Your task to perform on an android device: Go to Wikipedia Image 0: 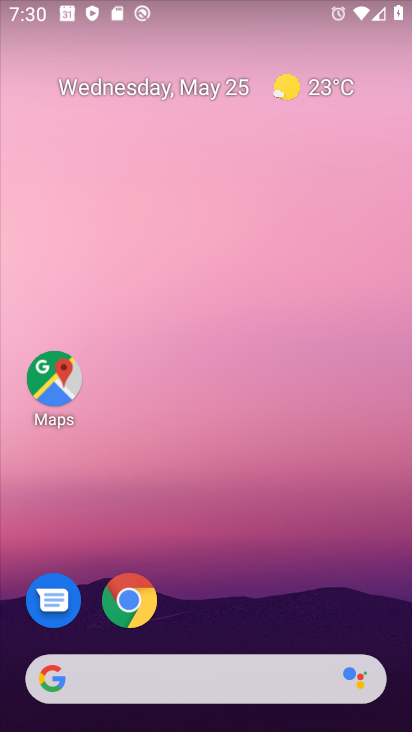
Step 0: click (129, 600)
Your task to perform on an android device: Go to Wikipedia Image 1: 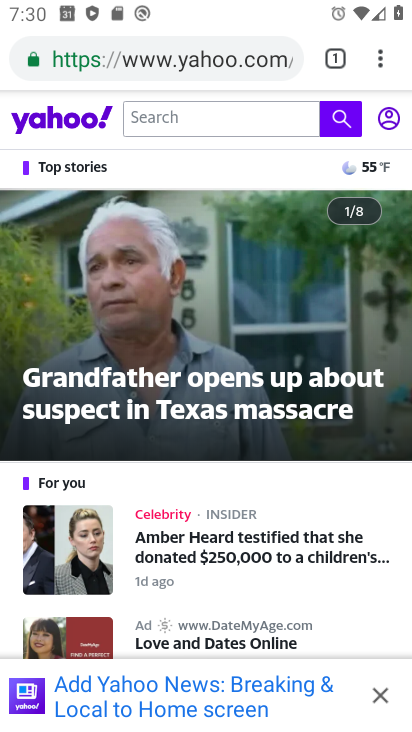
Step 1: click (278, 61)
Your task to perform on an android device: Go to Wikipedia Image 2: 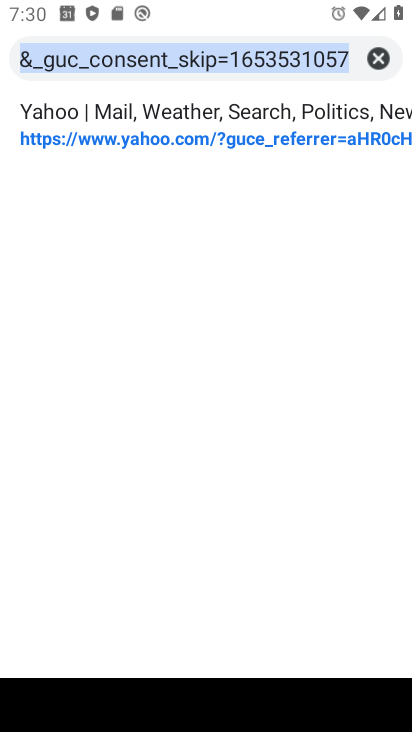
Step 2: click (374, 53)
Your task to perform on an android device: Go to Wikipedia Image 3: 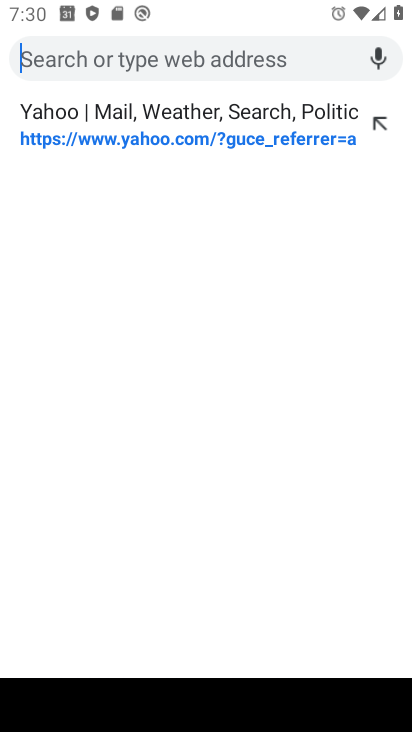
Step 3: type "Wikipedia"
Your task to perform on an android device: Go to Wikipedia Image 4: 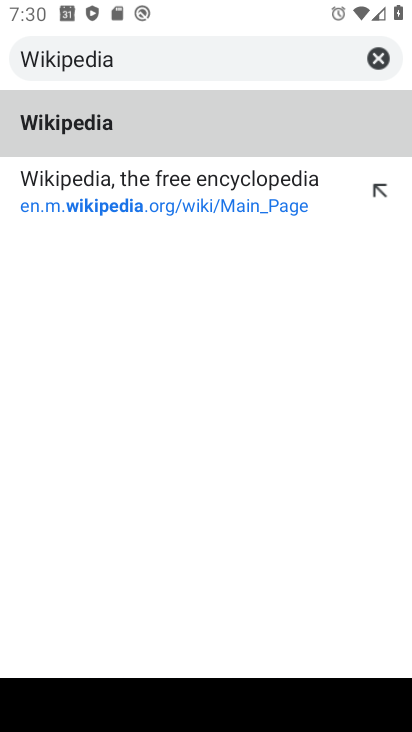
Step 4: click (50, 126)
Your task to perform on an android device: Go to Wikipedia Image 5: 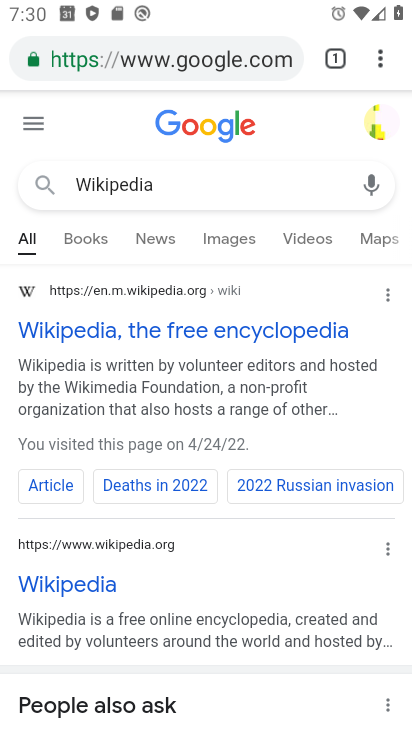
Step 5: click (91, 332)
Your task to perform on an android device: Go to Wikipedia Image 6: 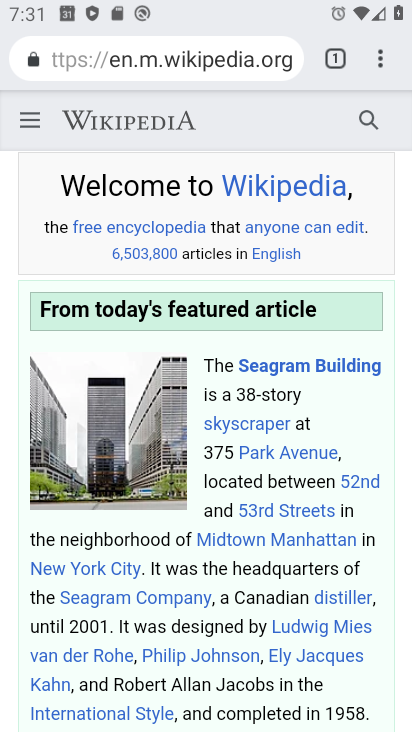
Step 6: task complete